Your task to perform on an android device: install app "Gmail" Image 0: 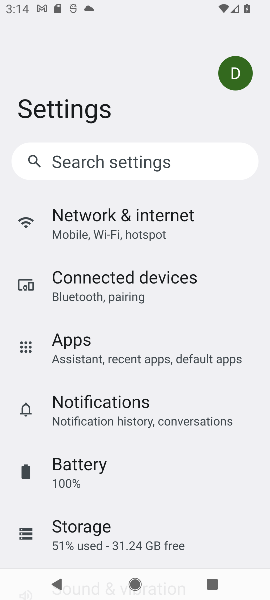
Step 0: press home button
Your task to perform on an android device: install app "Gmail" Image 1: 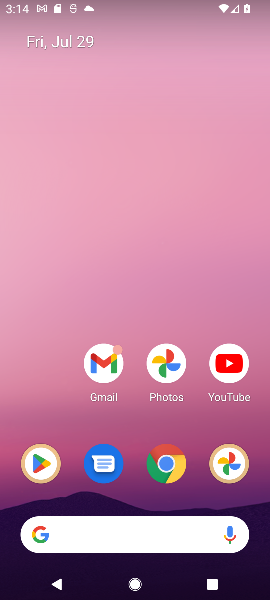
Step 1: drag from (102, 536) to (108, 95)
Your task to perform on an android device: install app "Gmail" Image 2: 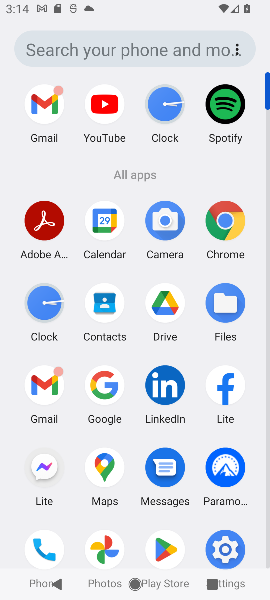
Step 2: click (165, 552)
Your task to perform on an android device: install app "Gmail" Image 3: 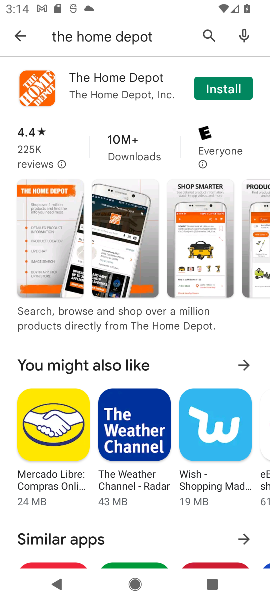
Step 3: click (203, 28)
Your task to perform on an android device: install app "Gmail" Image 4: 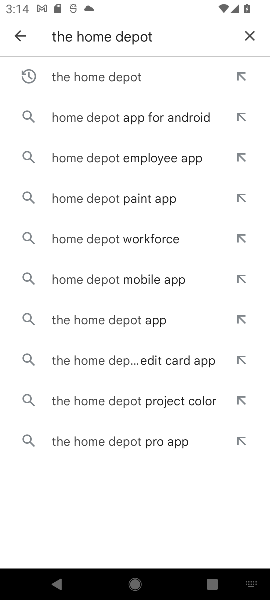
Step 4: click (251, 31)
Your task to perform on an android device: install app "Gmail" Image 5: 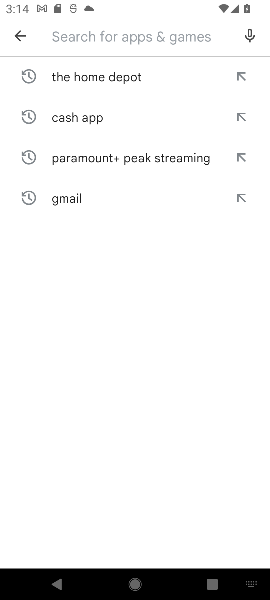
Step 5: type "Gmail"
Your task to perform on an android device: install app "Gmail" Image 6: 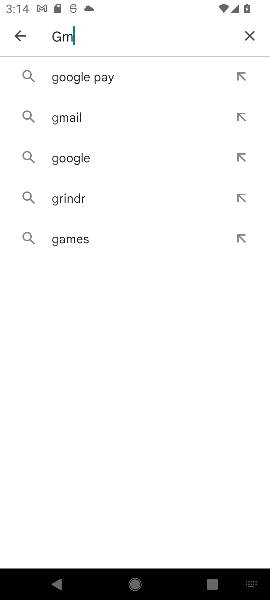
Step 6: type ""
Your task to perform on an android device: install app "Gmail" Image 7: 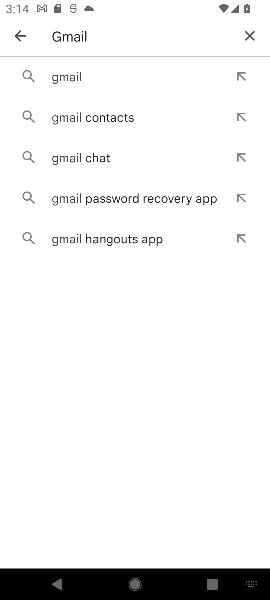
Step 7: click (73, 79)
Your task to perform on an android device: install app "Gmail" Image 8: 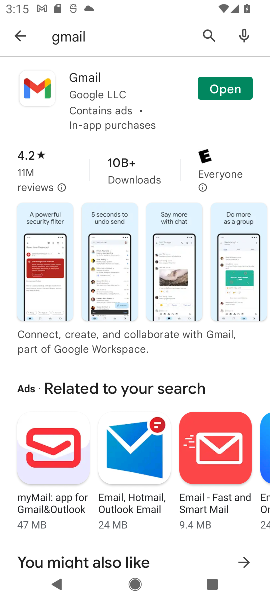
Step 8: click (88, 85)
Your task to perform on an android device: install app "Gmail" Image 9: 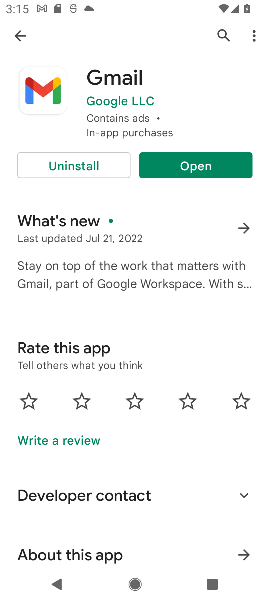
Step 9: task complete